Your task to perform on an android device: turn off translation in the chrome app Image 0: 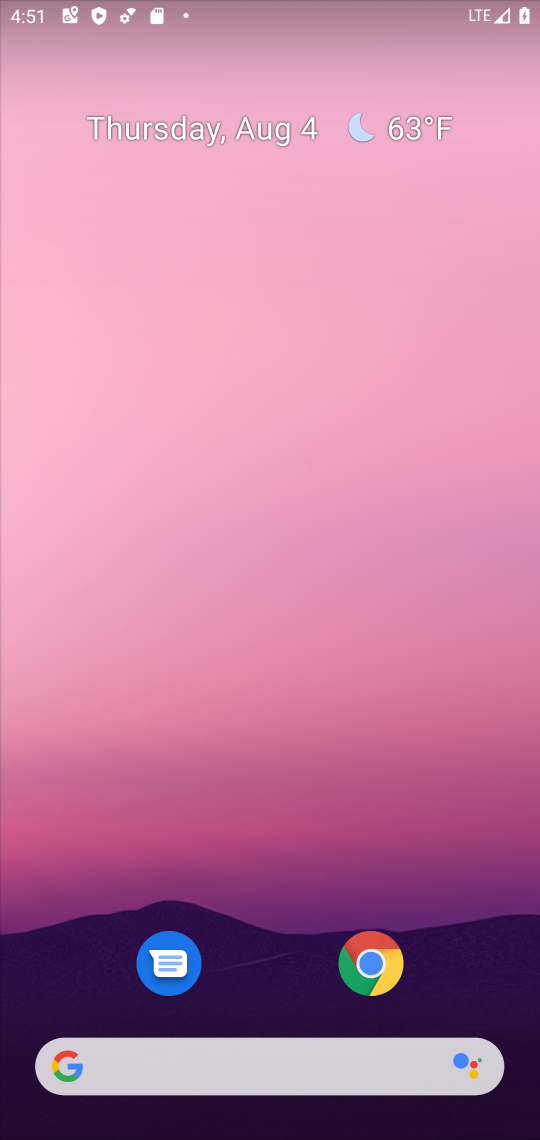
Step 0: click (380, 967)
Your task to perform on an android device: turn off translation in the chrome app Image 1: 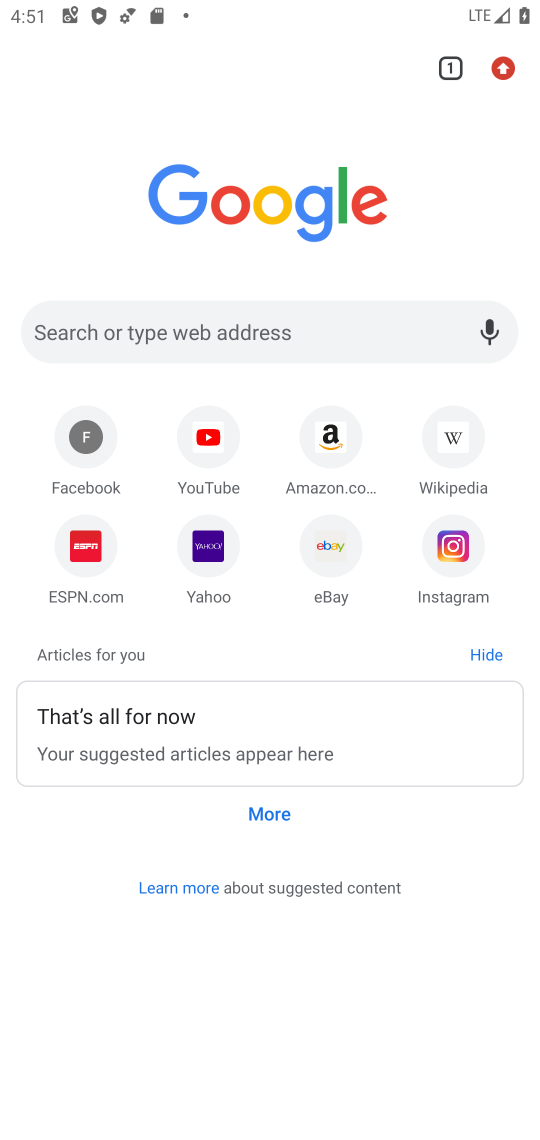
Step 1: click (503, 62)
Your task to perform on an android device: turn off translation in the chrome app Image 2: 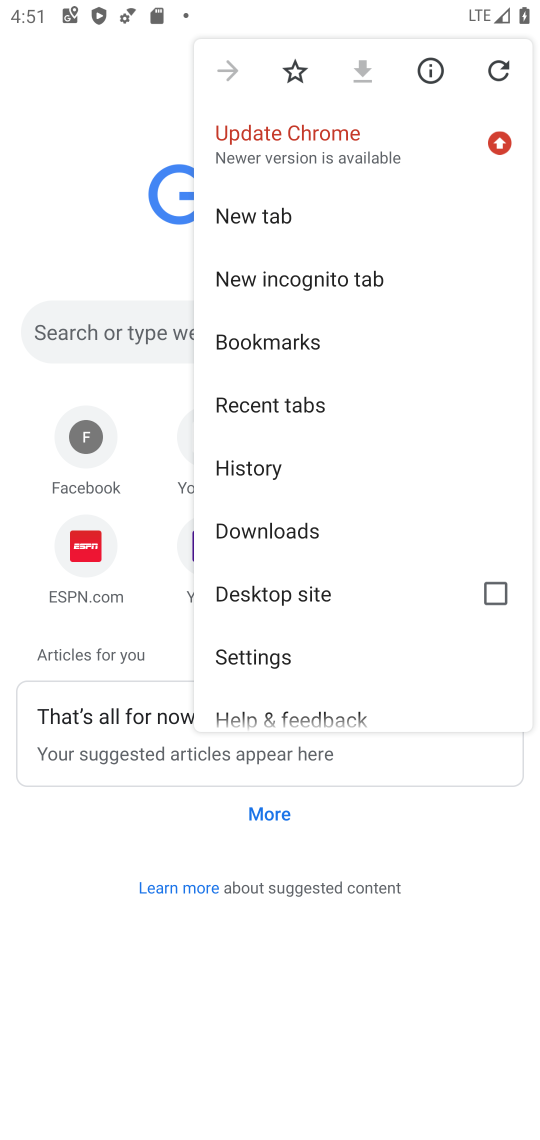
Step 2: click (252, 646)
Your task to perform on an android device: turn off translation in the chrome app Image 3: 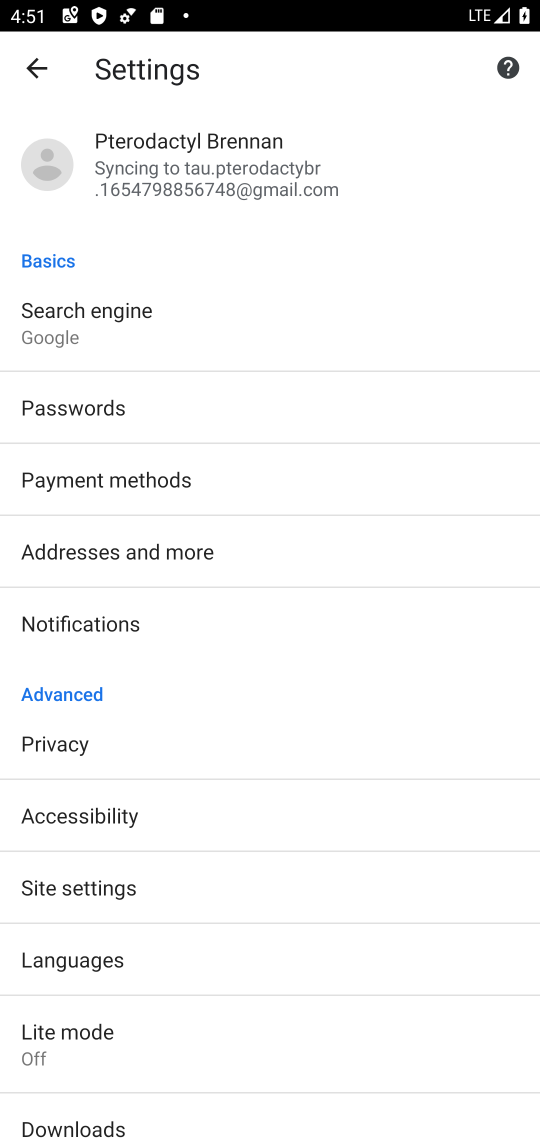
Step 3: click (79, 960)
Your task to perform on an android device: turn off translation in the chrome app Image 4: 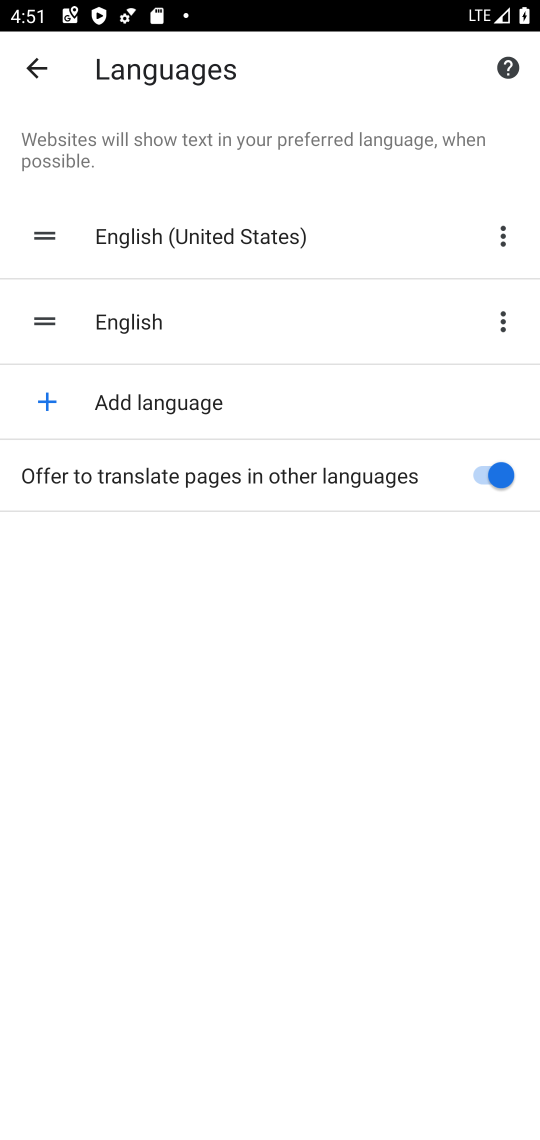
Step 4: click (502, 461)
Your task to perform on an android device: turn off translation in the chrome app Image 5: 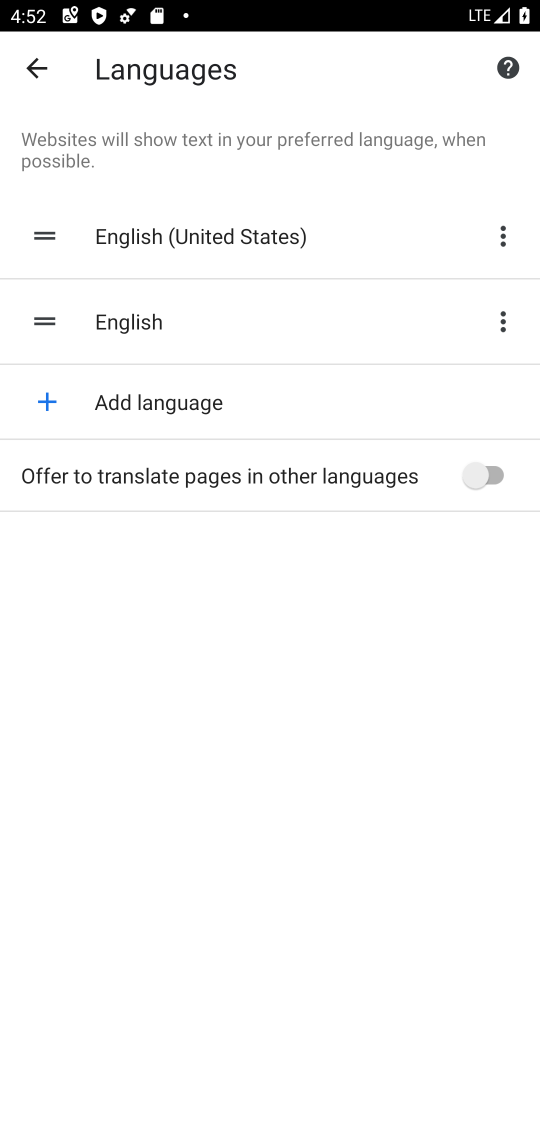
Step 5: task complete